Your task to perform on an android device: uninstall "Expedia: Hotels, Flights & Car" Image 0: 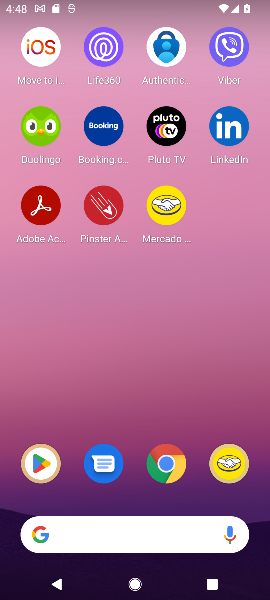
Step 0: press home button
Your task to perform on an android device: uninstall "Expedia: Hotels, Flights & Car" Image 1: 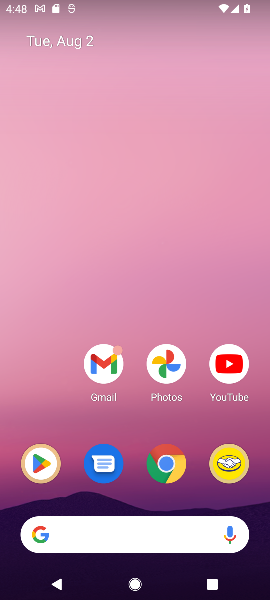
Step 1: click (49, 470)
Your task to perform on an android device: uninstall "Expedia: Hotels, Flights & Car" Image 2: 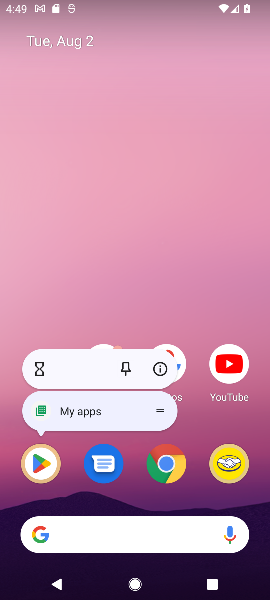
Step 2: click (35, 469)
Your task to perform on an android device: uninstall "Expedia: Hotels, Flights & Car" Image 3: 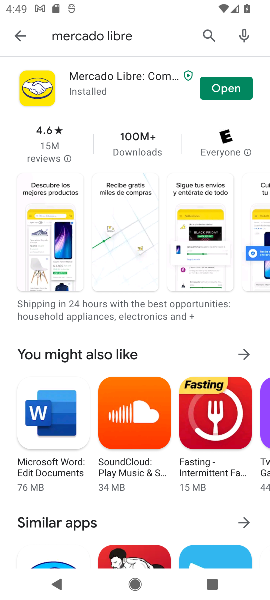
Step 3: click (202, 35)
Your task to perform on an android device: uninstall "Expedia: Hotels, Flights & Car" Image 4: 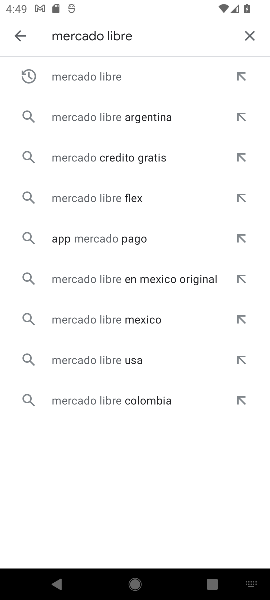
Step 4: click (245, 32)
Your task to perform on an android device: uninstall "Expedia: Hotels, Flights & Car" Image 5: 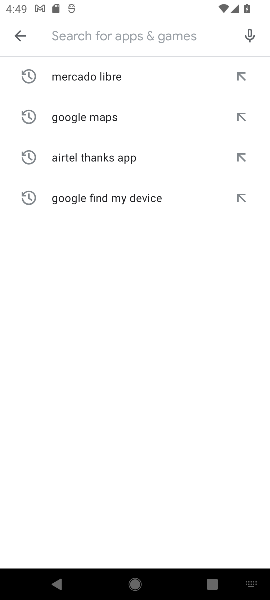
Step 5: type "Expedia: Hotels, Flights & Car"
Your task to perform on an android device: uninstall "Expedia: Hotels, Flights & Car" Image 6: 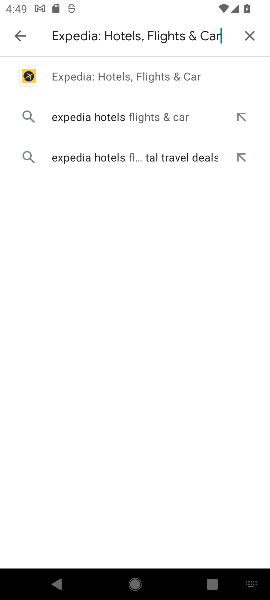
Step 6: click (111, 79)
Your task to perform on an android device: uninstall "Expedia: Hotels, Flights & Car" Image 7: 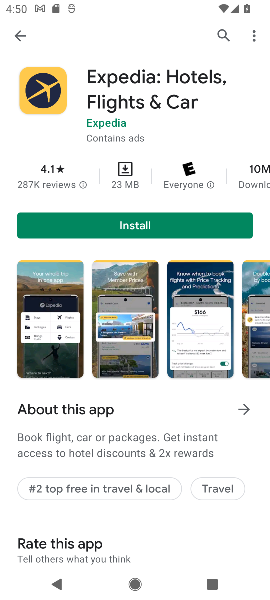
Step 7: task complete